Your task to perform on an android device: see creations saved in the google photos Image 0: 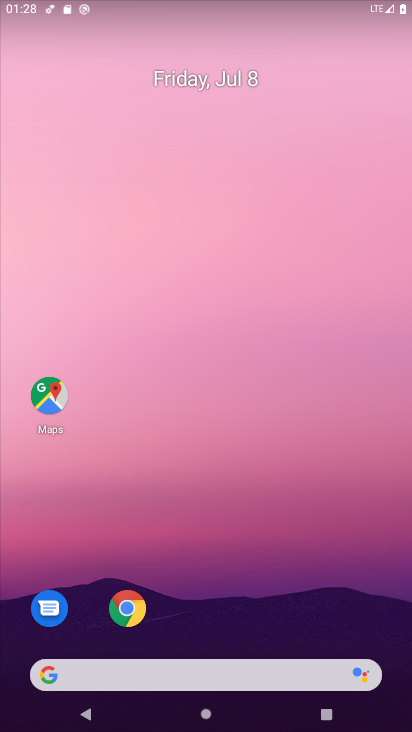
Step 0: drag from (275, 615) to (236, 245)
Your task to perform on an android device: see creations saved in the google photos Image 1: 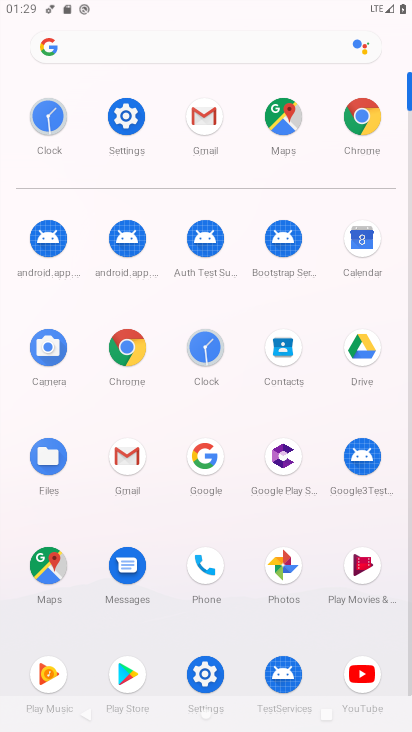
Step 1: click (275, 562)
Your task to perform on an android device: see creations saved in the google photos Image 2: 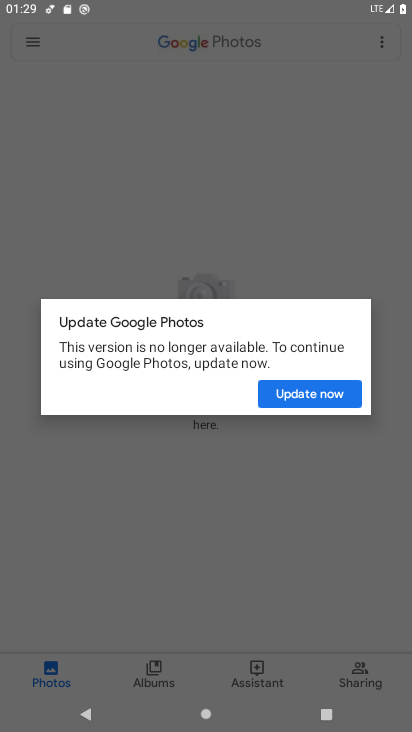
Step 2: click (231, 227)
Your task to perform on an android device: see creations saved in the google photos Image 3: 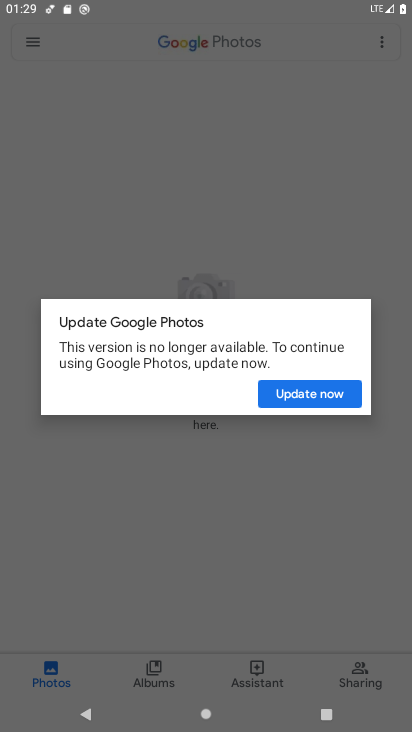
Step 3: task complete